Your task to perform on an android device: change the upload size in google photos Image 0: 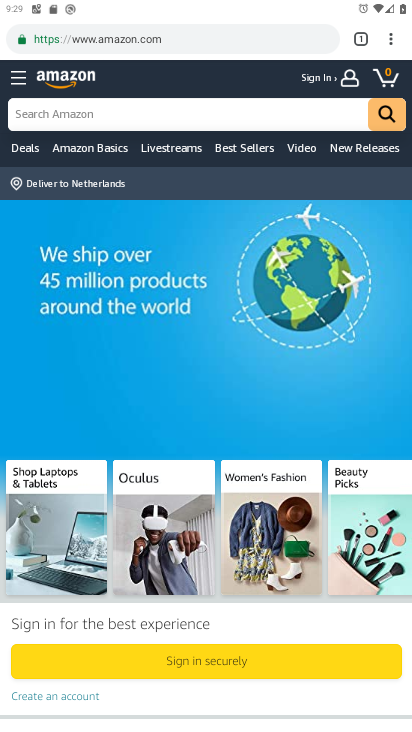
Step 0: press home button
Your task to perform on an android device: change the upload size in google photos Image 1: 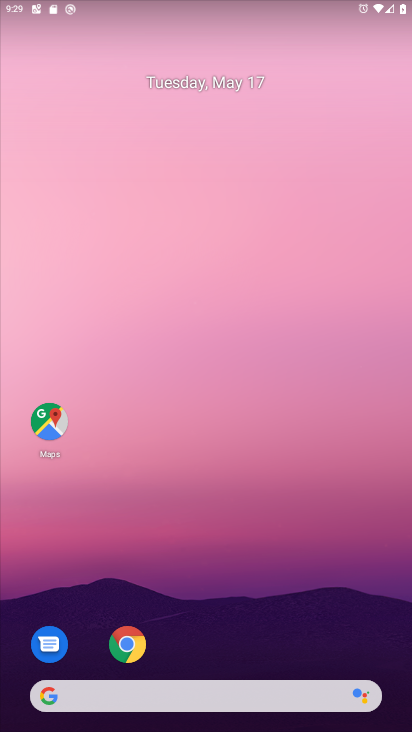
Step 1: drag from (225, 664) to (199, 191)
Your task to perform on an android device: change the upload size in google photos Image 2: 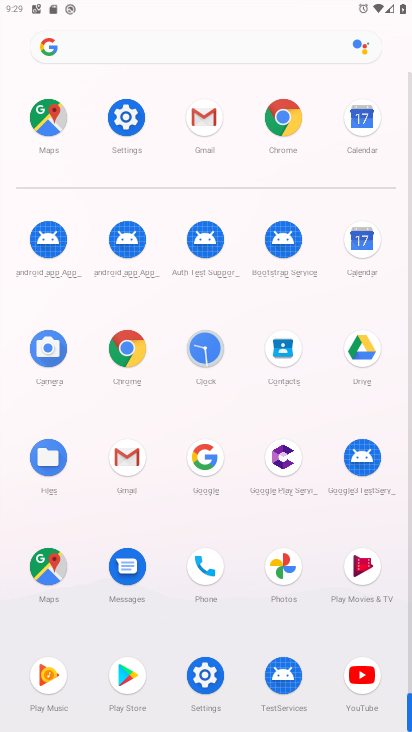
Step 2: click (280, 563)
Your task to perform on an android device: change the upload size in google photos Image 3: 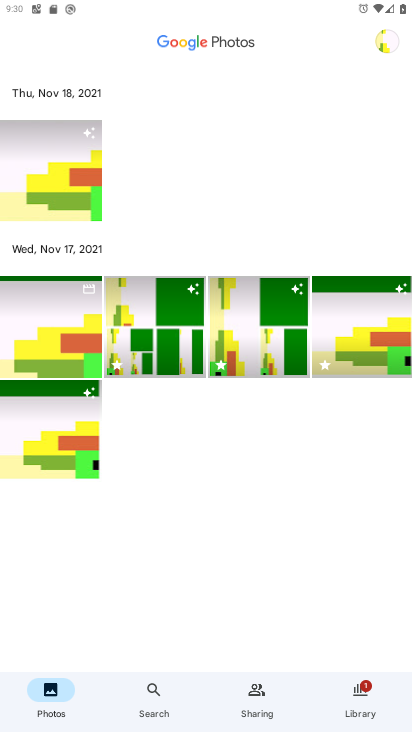
Step 3: click (385, 44)
Your task to perform on an android device: change the upload size in google photos Image 4: 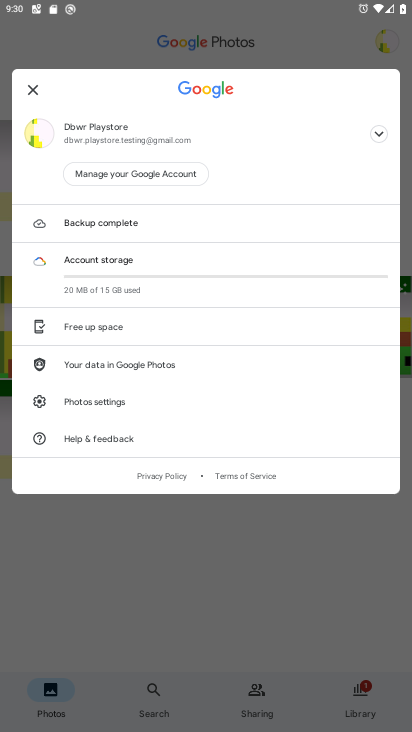
Step 4: click (138, 213)
Your task to perform on an android device: change the upload size in google photos Image 5: 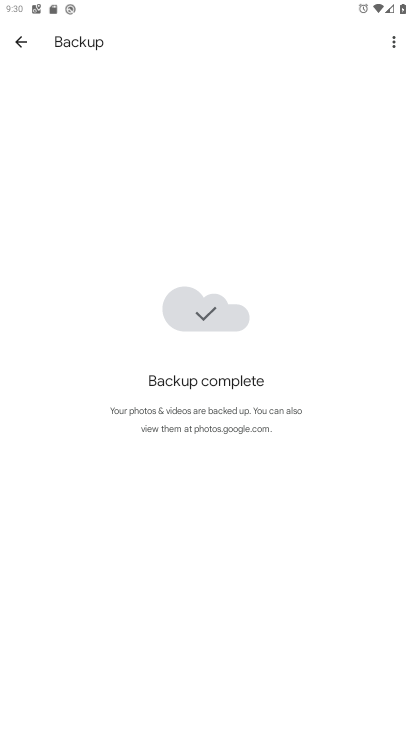
Step 5: click (398, 42)
Your task to perform on an android device: change the upload size in google photos Image 6: 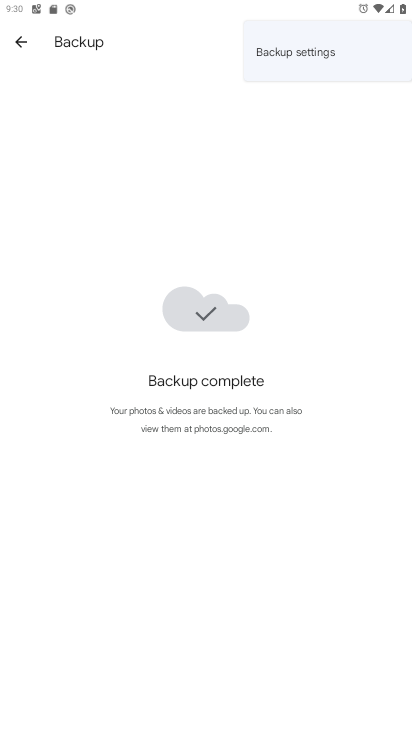
Step 6: click (298, 55)
Your task to perform on an android device: change the upload size in google photos Image 7: 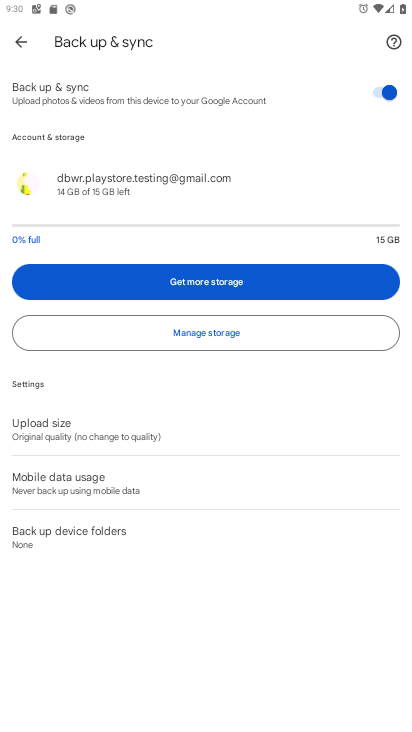
Step 7: click (79, 426)
Your task to perform on an android device: change the upload size in google photos Image 8: 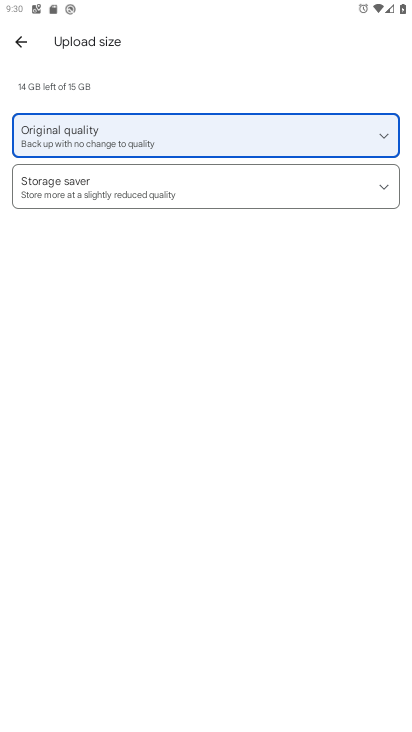
Step 8: click (89, 185)
Your task to perform on an android device: change the upload size in google photos Image 9: 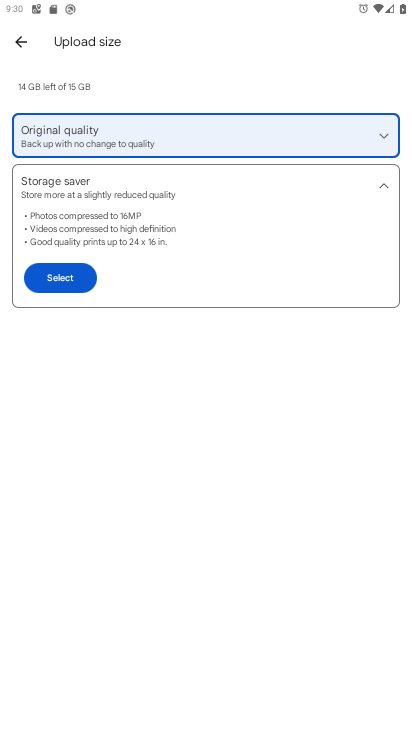
Step 9: click (59, 279)
Your task to perform on an android device: change the upload size in google photos Image 10: 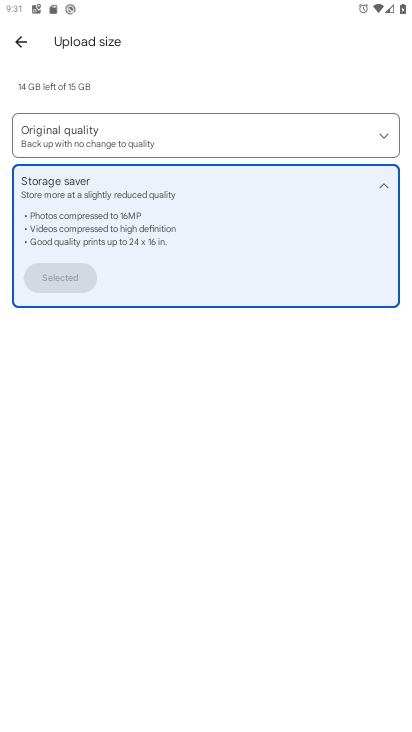
Step 10: task complete